Your task to perform on an android device: set default search engine in the chrome app Image 0: 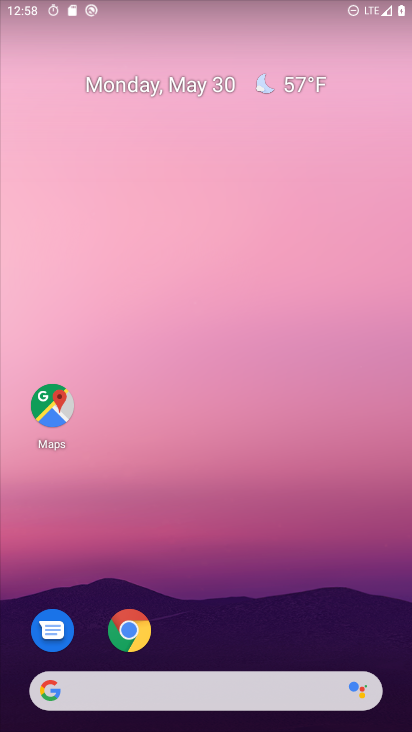
Step 0: drag from (287, 645) to (189, 212)
Your task to perform on an android device: set default search engine in the chrome app Image 1: 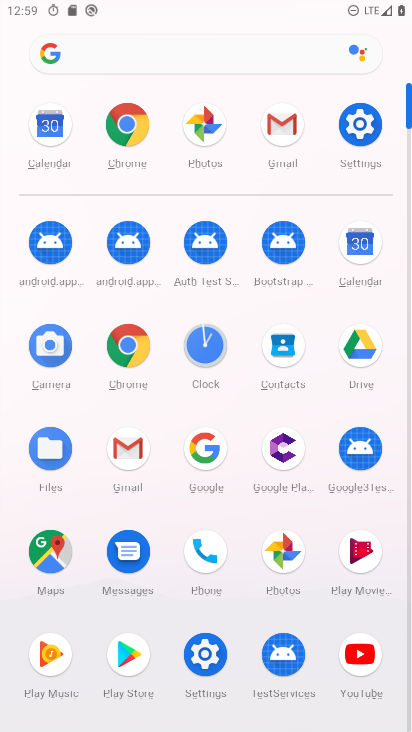
Step 1: click (146, 120)
Your task to perform on an android device: set default search engine in the chrome app Image 2: 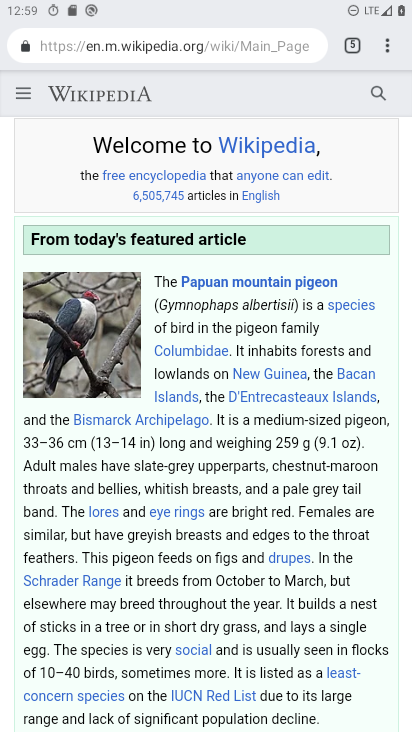
Step 2: click (373, 55)
Your task to perform on an android device: set default search engine in the chrome app Image 3: 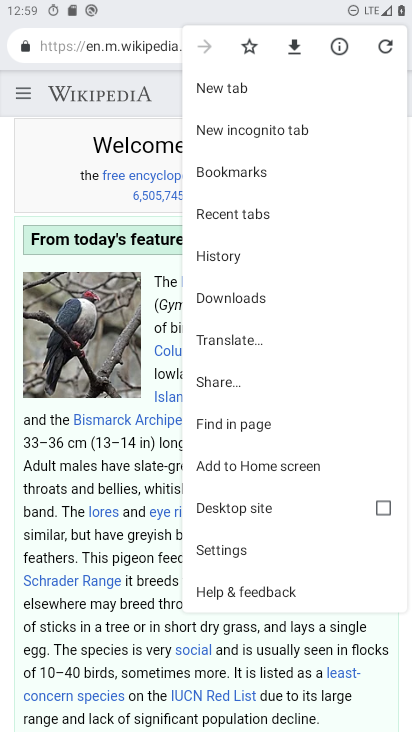
Step 3: click (244, 548)
Your task to perform on an android device: set default search engine in the chrome app Image 4: 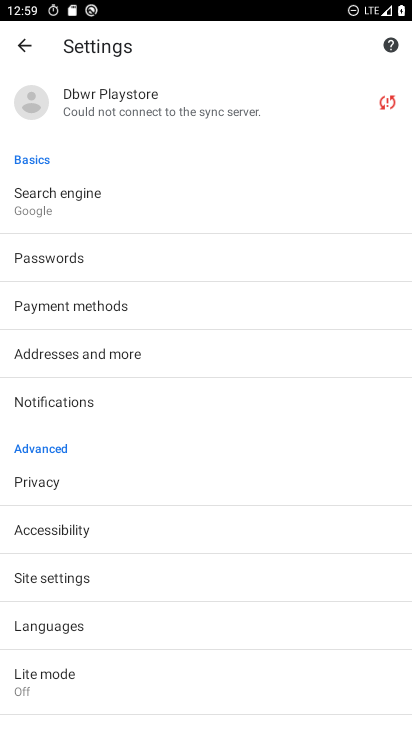
Step 4: click (208, 207)
Your task to perform on an android device: set default search engine in the chrome app Image 5: 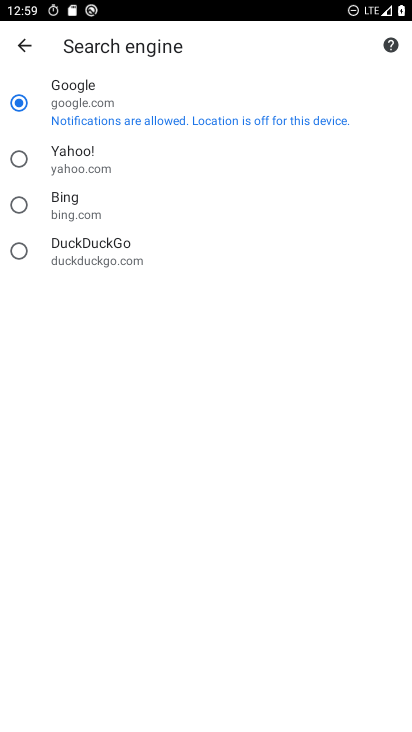
Step 5: task complete